Your task to perform on an android device: Add usb-c to usb-a to the cart on target.com, then select checkout. Image 0: 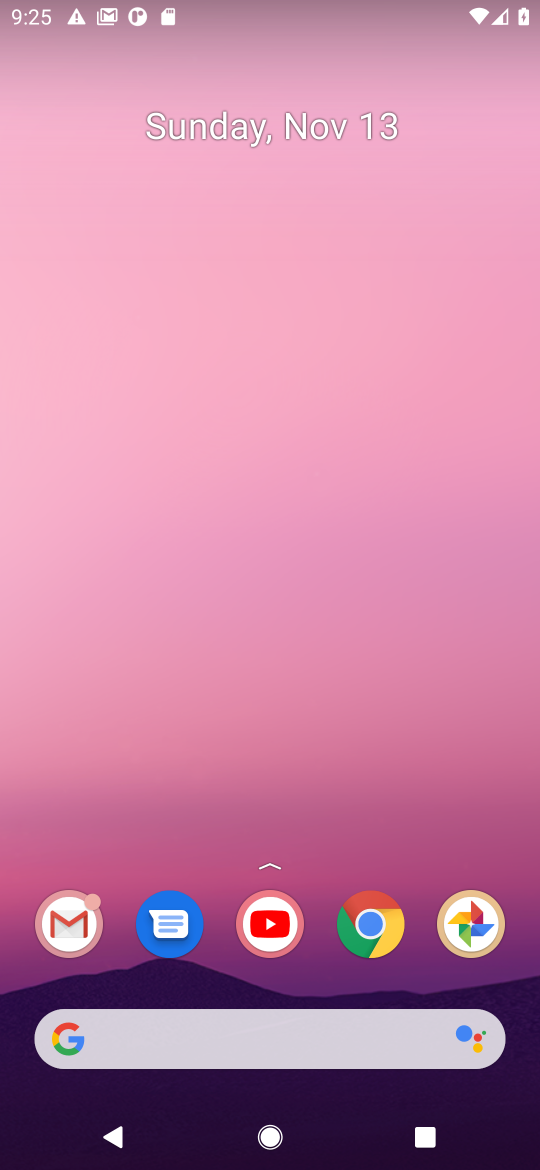
Step 0: click (364, 914)
Your task to perform on an android device: Add usb-c to usb-a to the cart on target.com, then select checkout. Image 1: 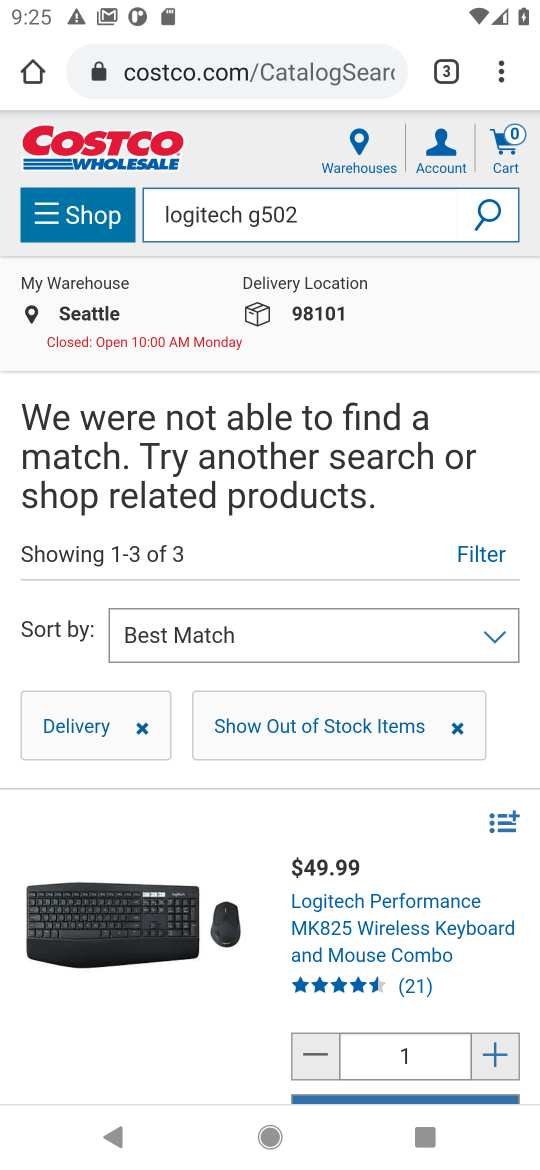
Step 1: click (157, 75)
Your task to perform on an android device: Add usb-c to usb-a to the cart on target.com, then select checkout. Image 2: 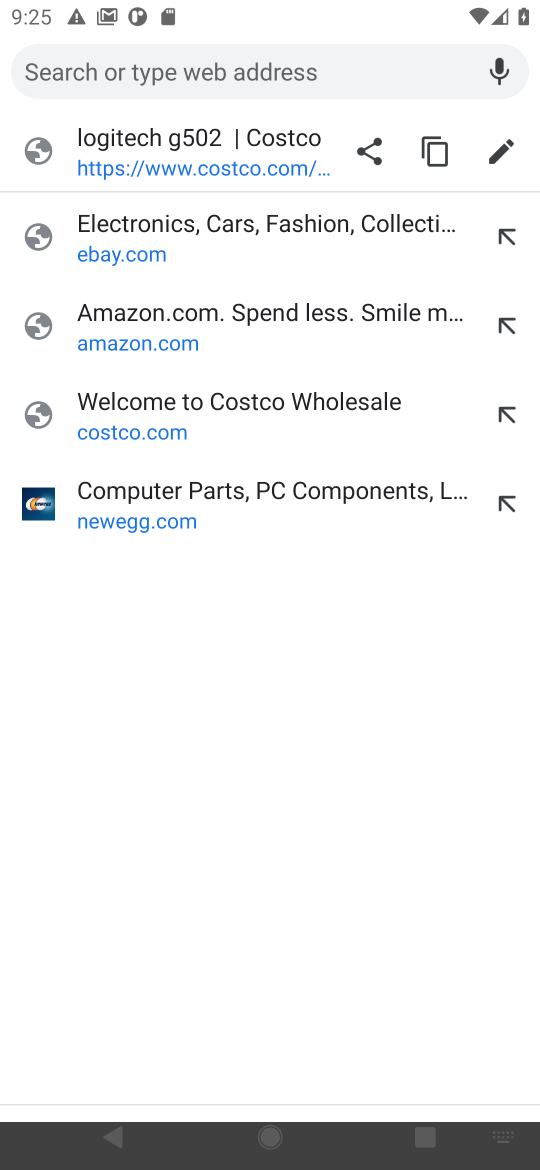
Step 2: click (157, 75)
Your task to perform on an android device: Add usb-c to usb-a to the cart on target.com, then select checkout. Image 3: 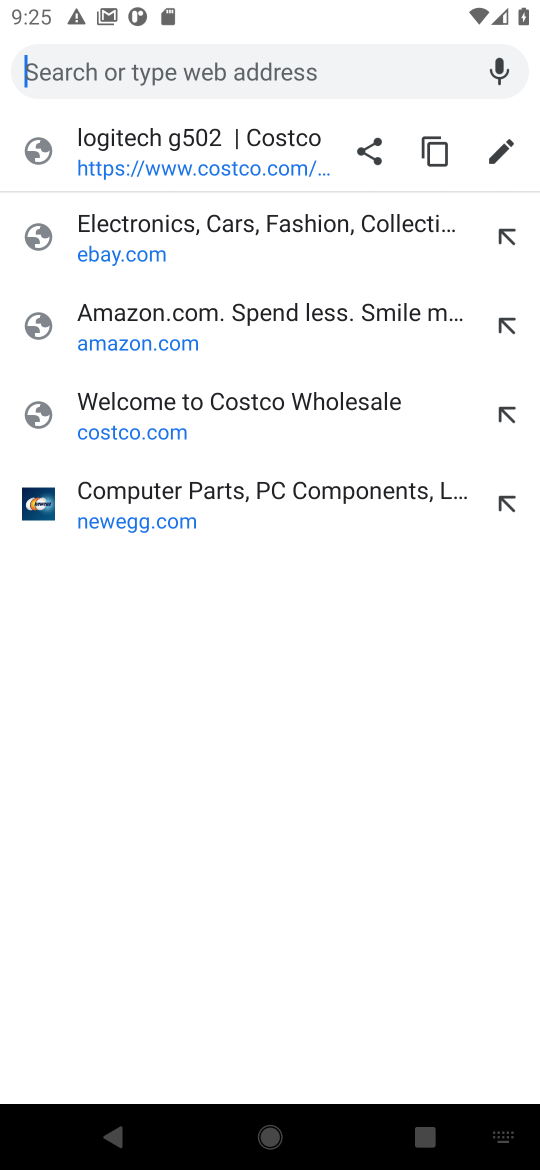
Step 3: type "target.com"
Your task to perform on an android device: Add usb-c to usb-a to the cart on target.com, then select checkout. Image 4: 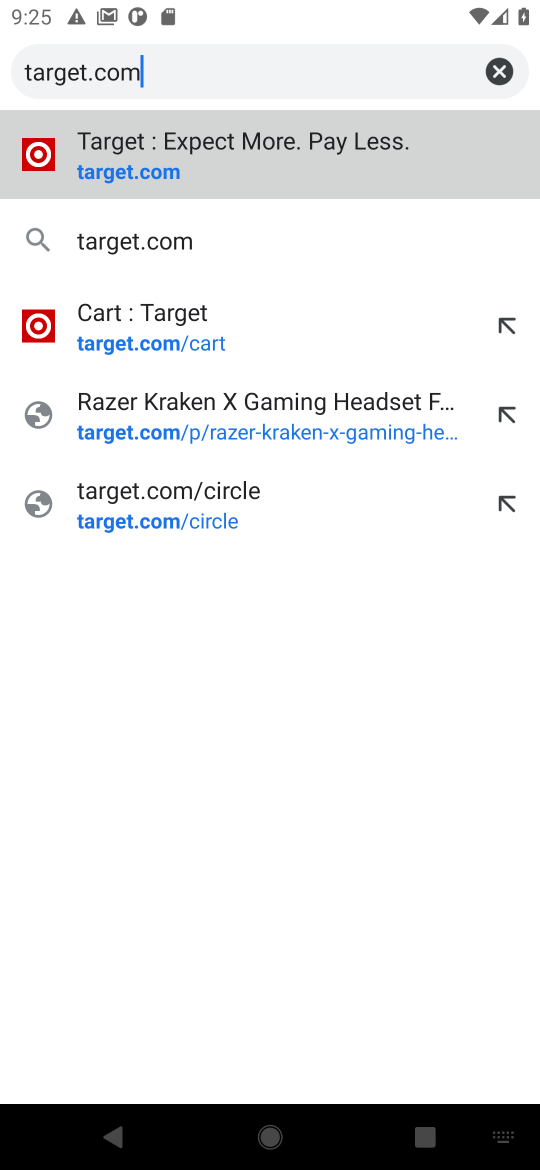
Step 4: click (97, 188)
Your task to perform on an android device: Add usb-c to usb-a to the cart on target.com, then select checkout. Image 5: 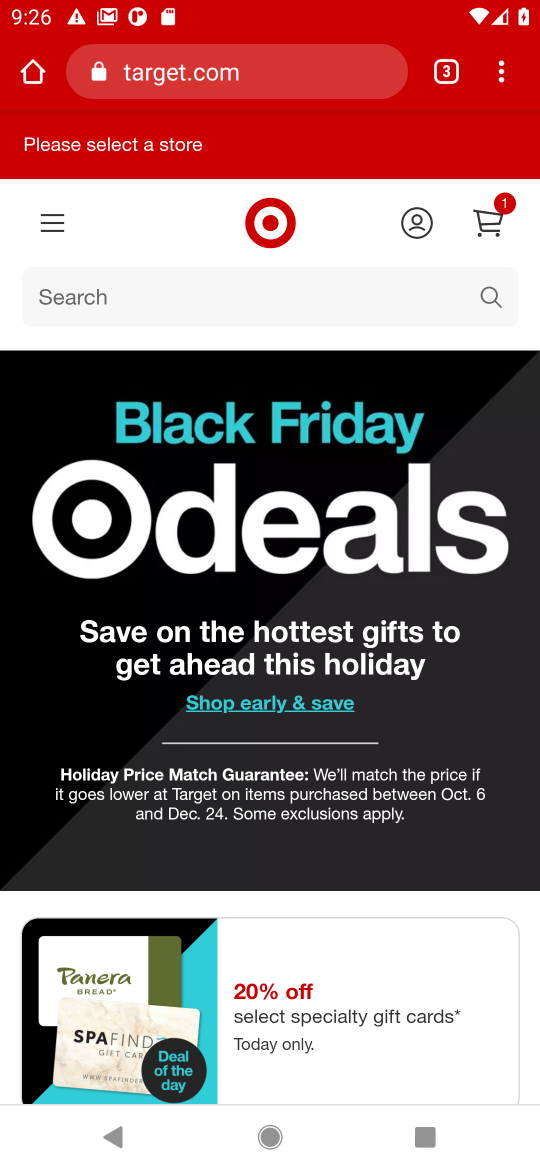
Step 5: click (490, 295)
Your task to perform on an android device: Add usb-c to usb-a to the cart on target.com, then select checkout. Image 6: 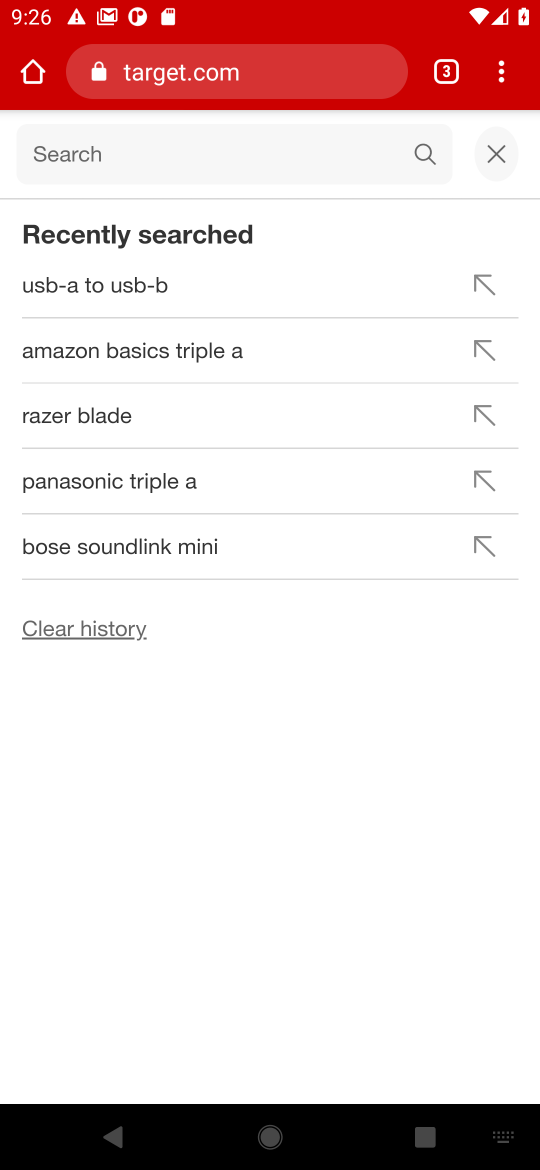
Step 6: click (179, 156)
Your task to perform on an android device: Add usb-c to usb-a to the cart on target.com, then select checkout. Image 7: 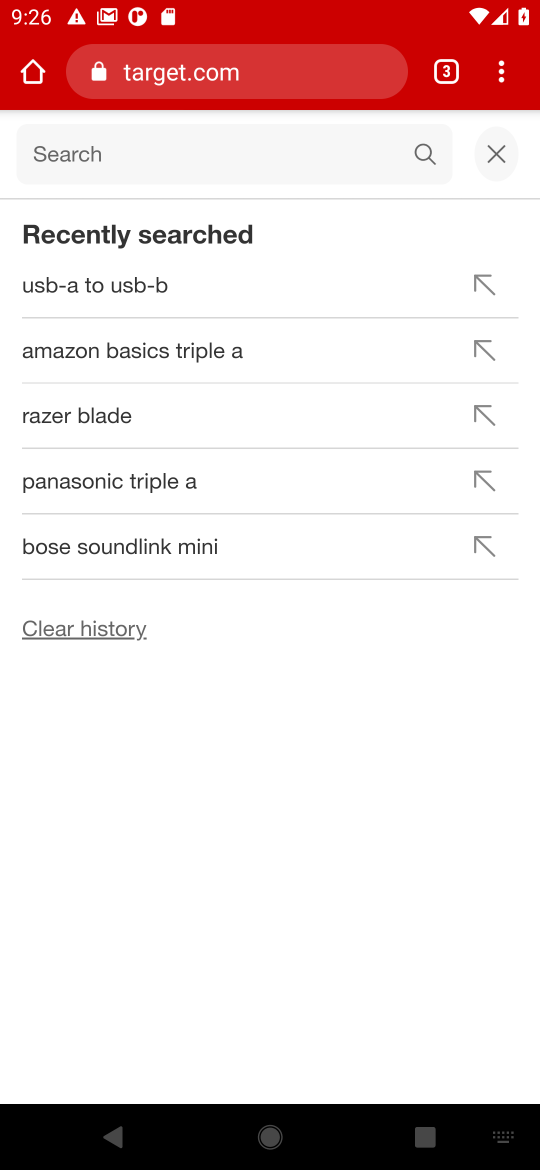
Step 7: type "usb-c to usb-a "
Your task to perform on an android device: Add usb-c to usb-a to the cart on target.com, then select checkout. Image 8: 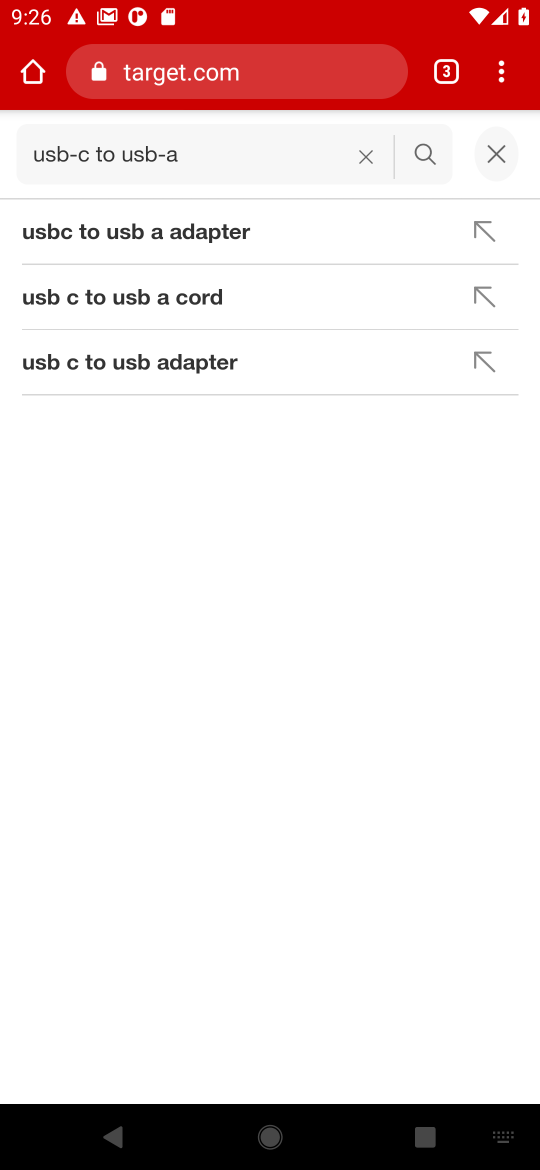
Step 8: click (423, 152)
Your task to perform on an android device: Add usb-c to usb-a to the cart on target.com, then select checkout. Image 9: 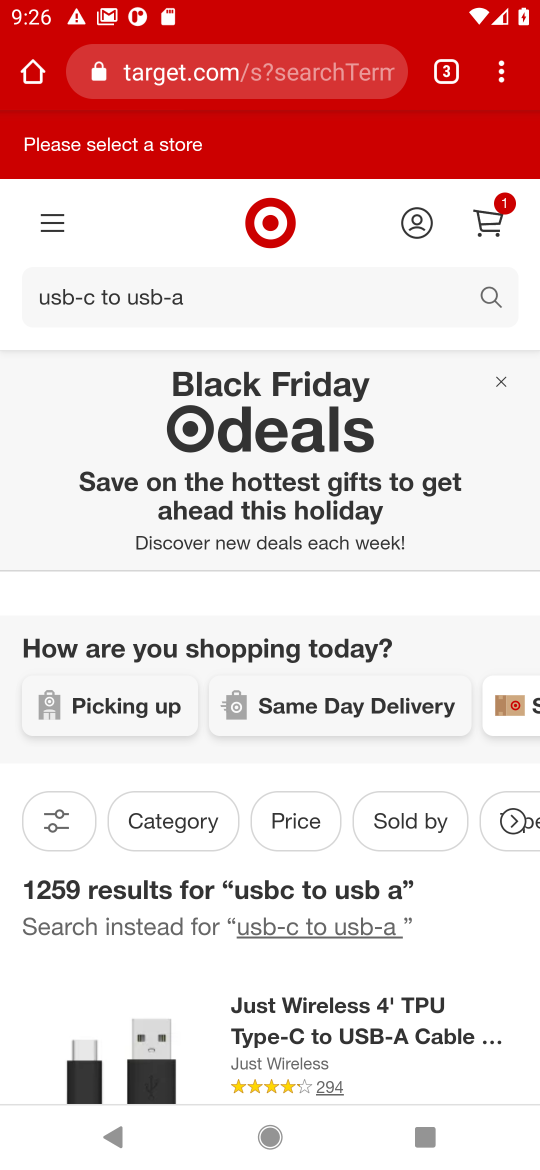
Step 9: drag from (254, 770) to (246, 440)
Your task to perform on an android device: Add usb-c to usb-a to the cart on target.com, then select checkout. Image 10: 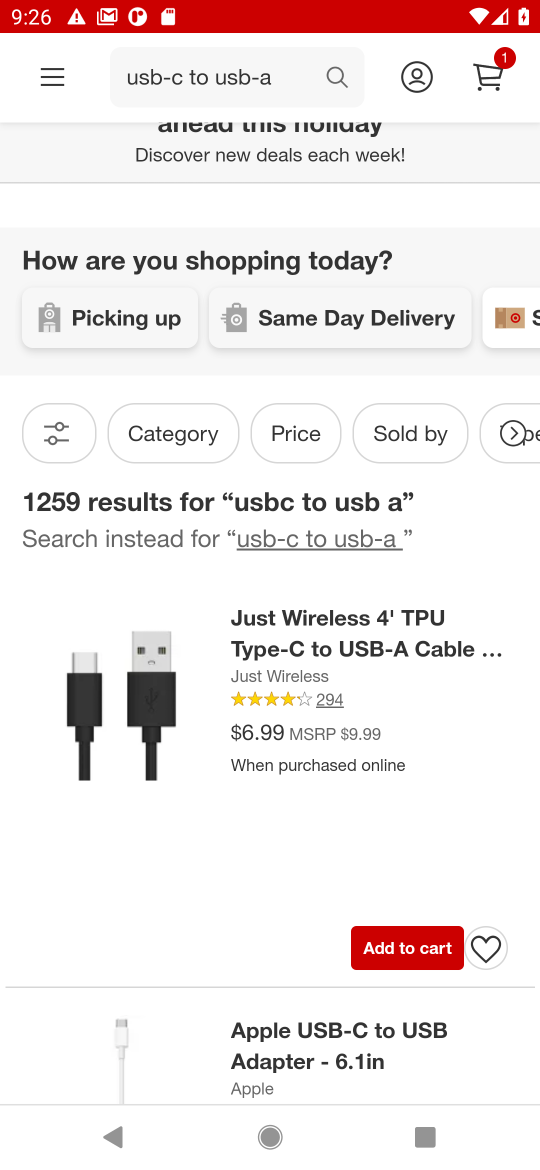
Step 10: drag from (185, 955) to (154, 649)
Your task to perform on an android device: Add usb-c to usb-a to the cart on target.com, then select checkout. Image 11: 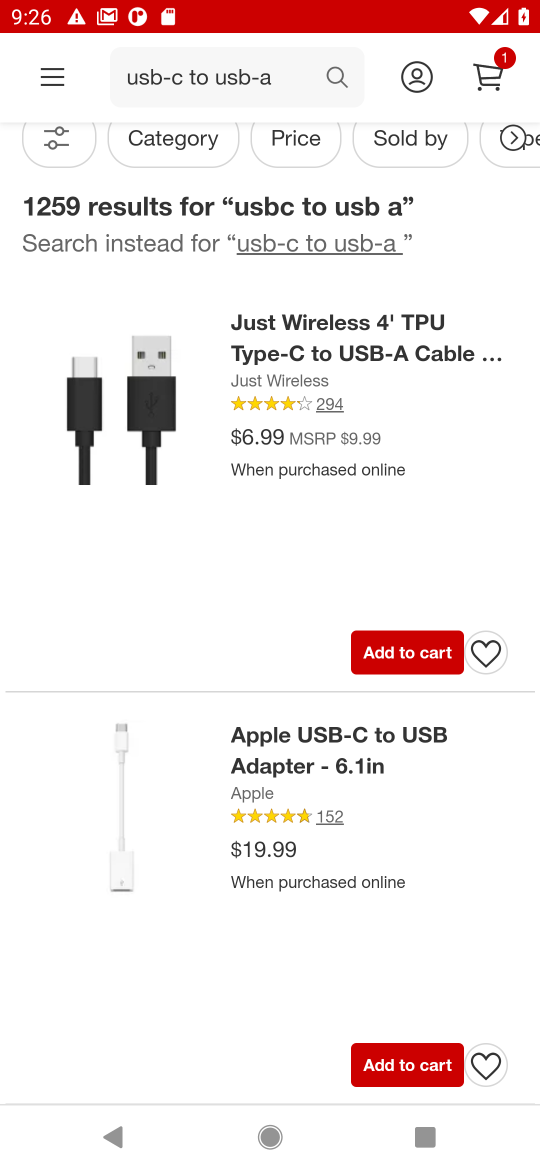
Step 11: drag from (207, 949) to (185, 465)
Your task to perform on an android device: Add usb-c to usb-a to the cart on target.com, then select checkout. Image 12: 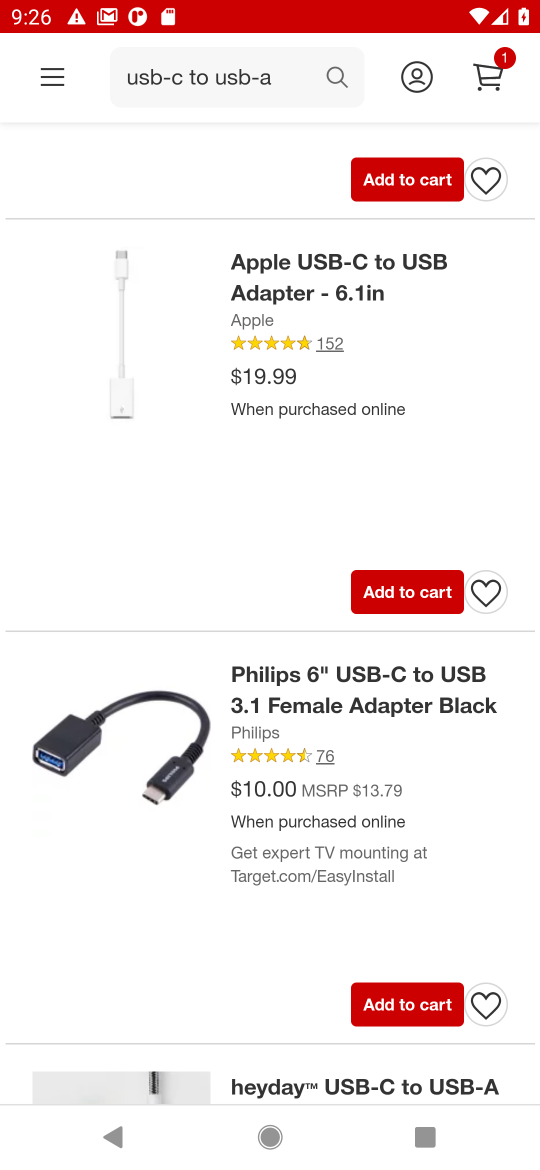
Step 12: drag from (202, 855) to (188, 453)
Your task to perform on an android device: Add usb-c to usb-a to the cart on target.com, then select checkout. Image 13: 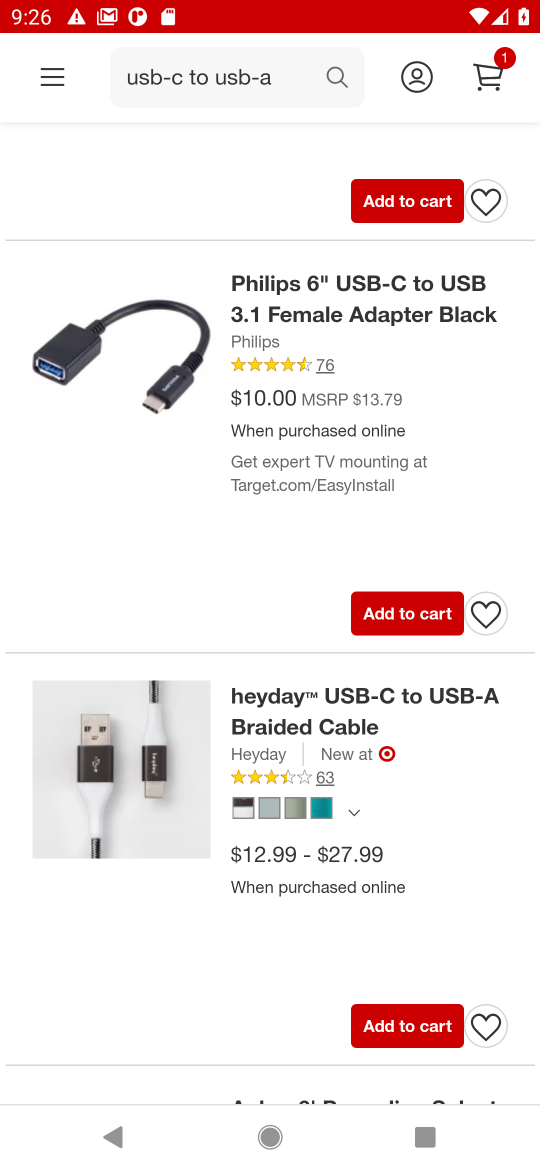
Step 13: click (402, 1024)
Your task to perform on an android device: Add usb-c to usb-a to the cart on target.com, then select checkout. Image 14: 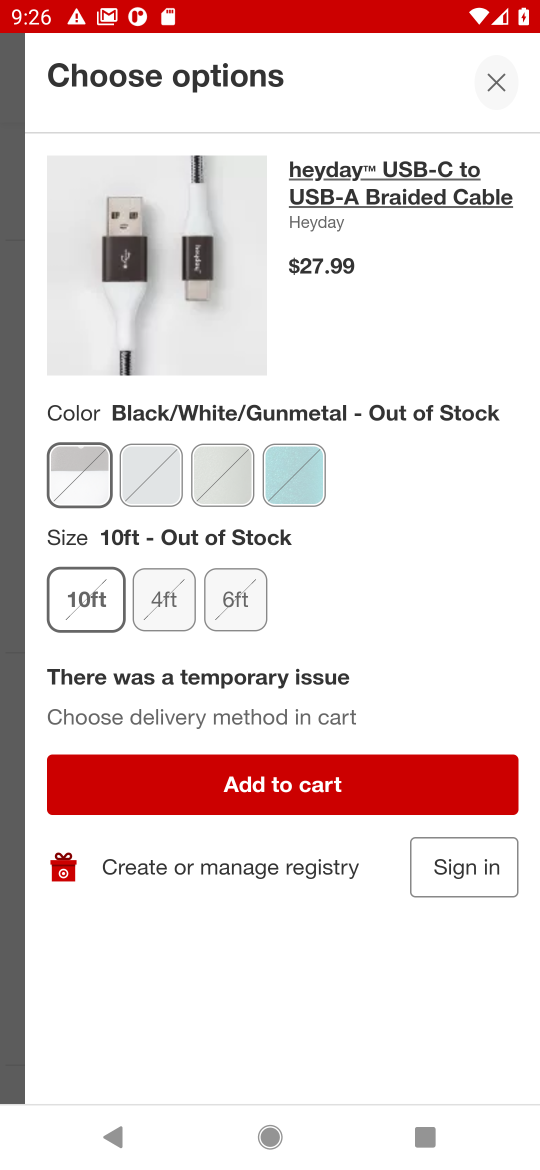
Step 14: click (265, 787)
Your task to perform on an android device: Add usb-c to usb-a to the cart on target.com, then select checkout. Image 15: 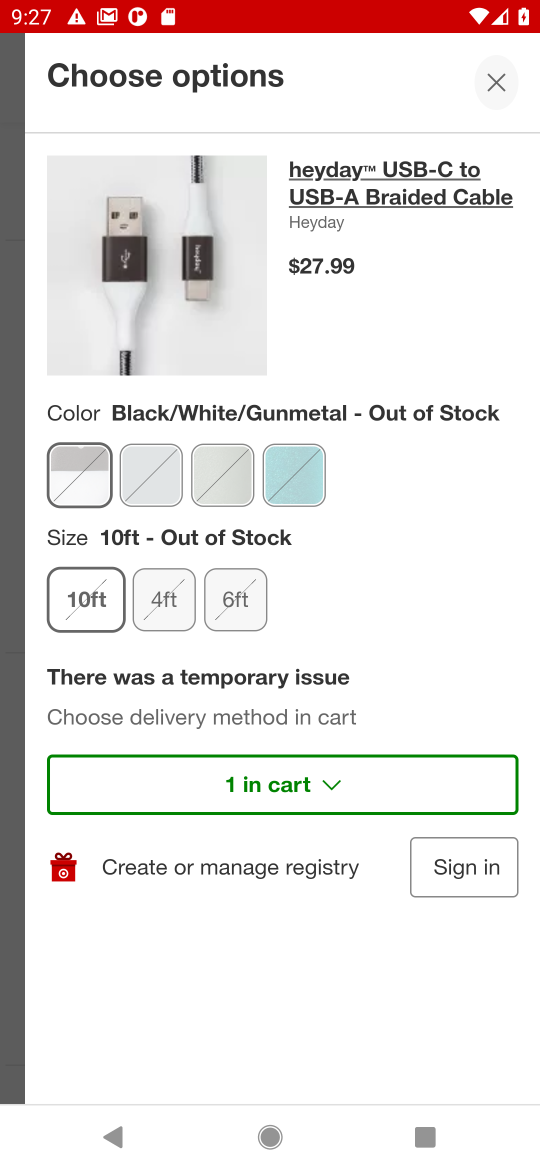
Step 15: click (495, 82)
Your task to perform on an android device: Add usb-c to usb-a to the cart on target.com, then select checkout. Image 16: 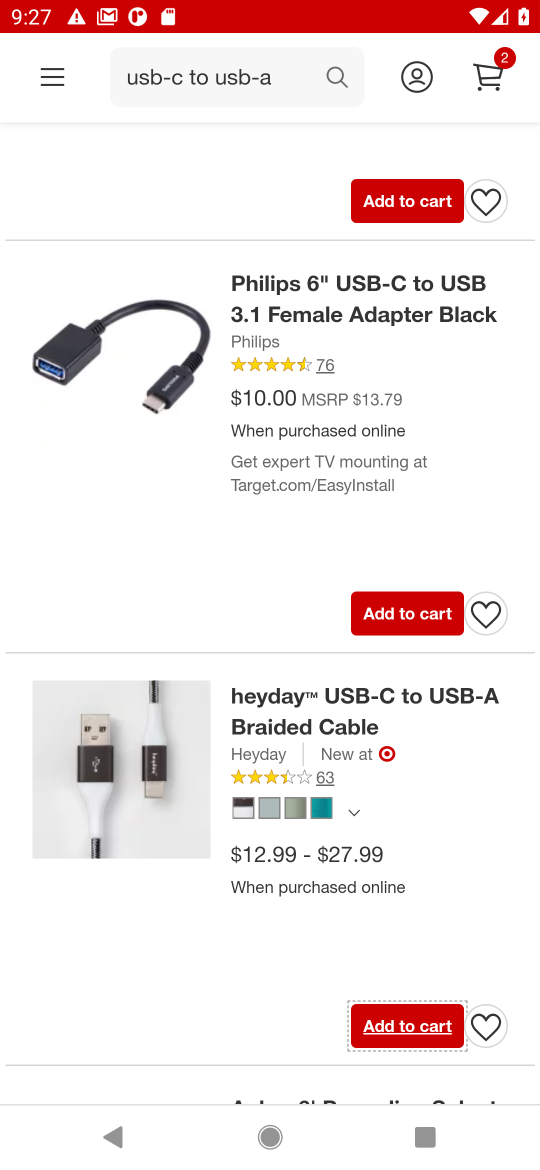
Step 16: click (493, 86)
Your task to perform on an android device: Add usb-c to usb-a to the cart on target.com, then select checkout. Image 17: 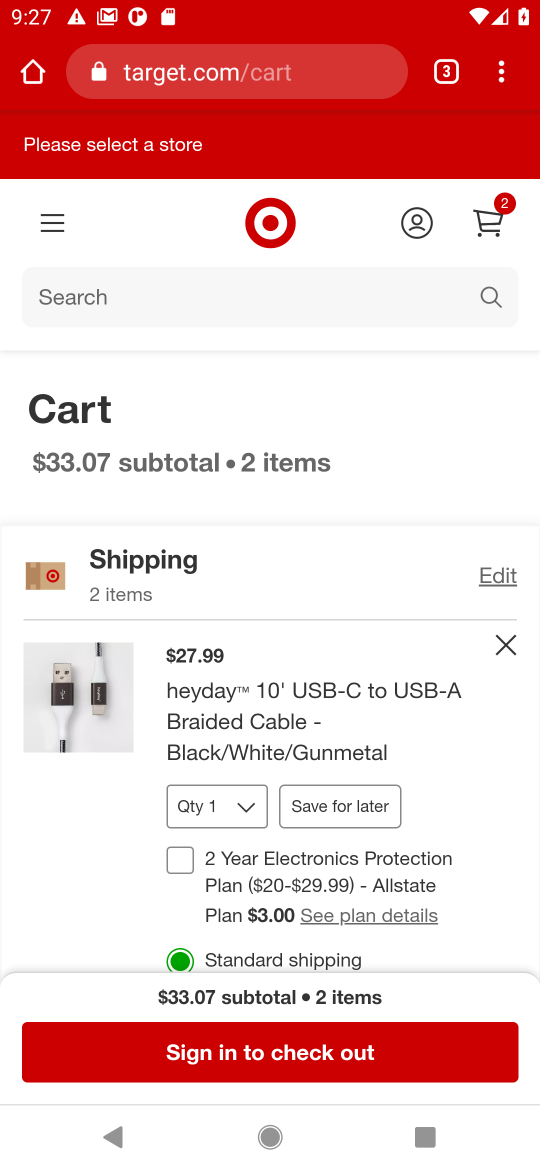
Step 17: click (295, 1055)
Your task to perform on an android device: Add usb-c to usb-a to the cart on target.com, then select checkout. Image 18: 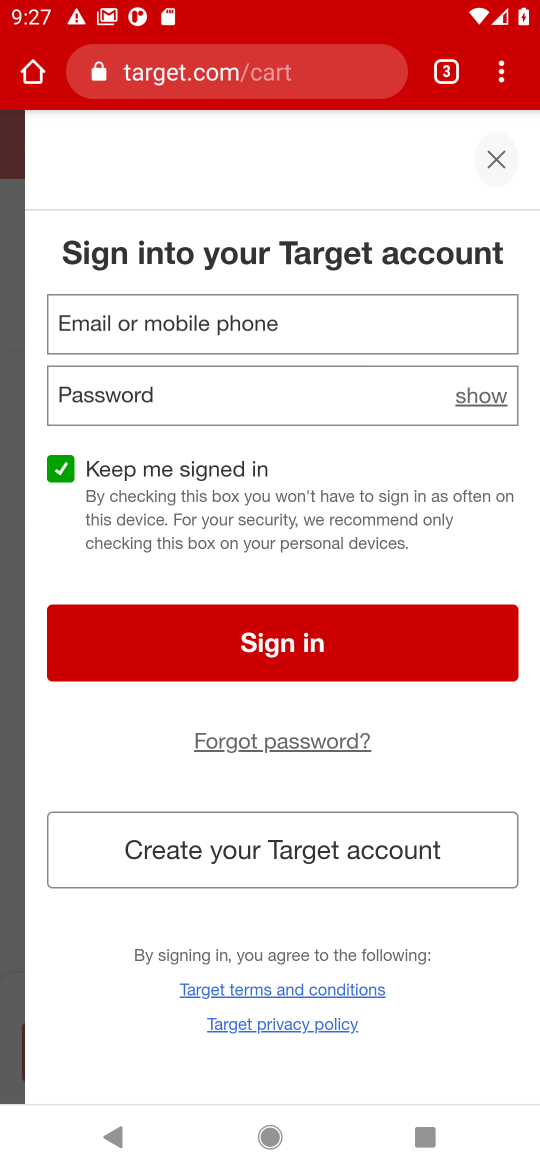
Step 18: task complete